Your task to perform on an android device: turn on airplane mode Image 0: 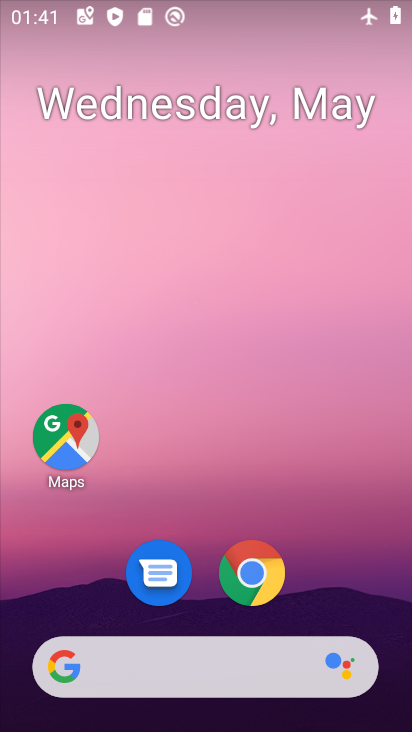
Step 0: drag from (351, 581) to (300, 319)
Your task to perform on an android device: turn on airplane mode Image 1: 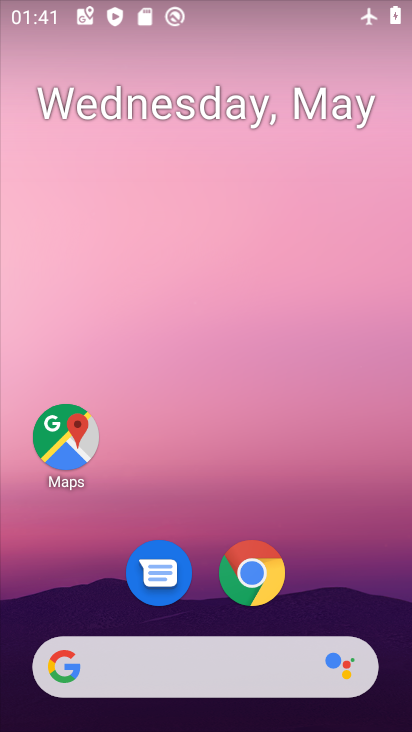
Step 1: drag from (269, 601) to (317, 80)
Your task to perform on an android device: turn on airplane mode Image 2: 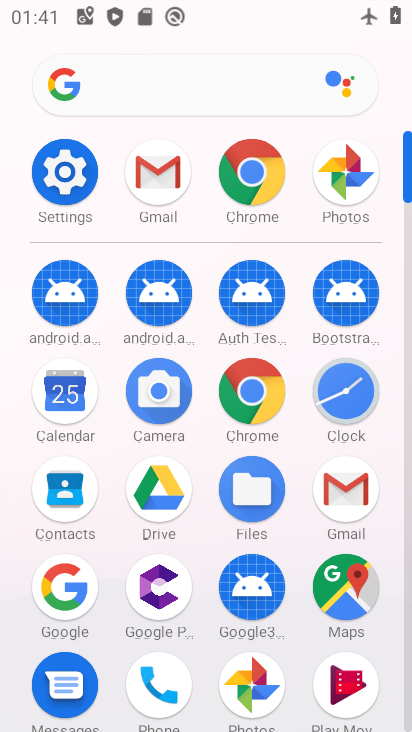
Step 2: click (69, 154)
Your task to perform on an android device: turn on airplane mode Image 3: 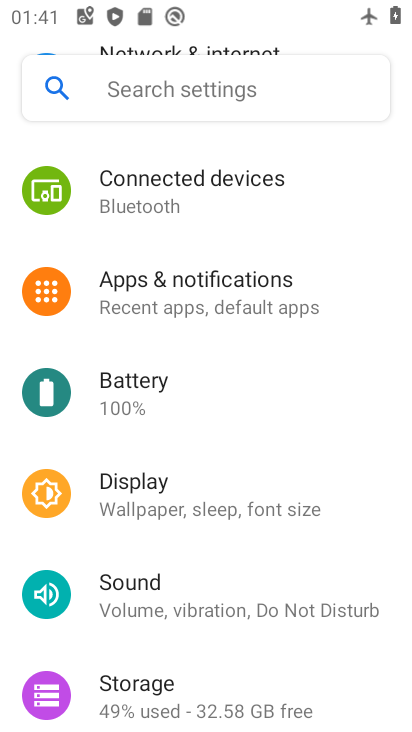
Step 3: drag from (213, 177) to (199, 496)
Your task to perform on an android device: turn on airplane mode Image 4: 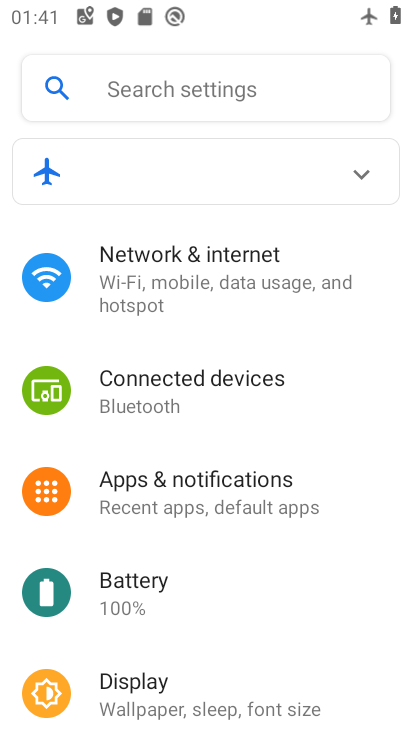
Step 4: click (200, 270)
Your task to perform on an android device: turn on airplane mode Image 5: 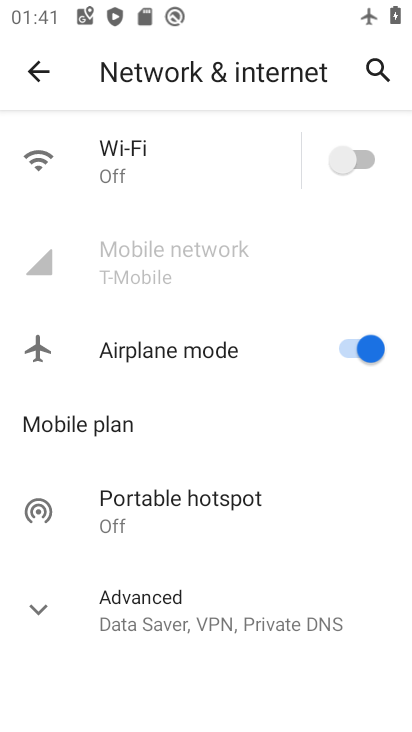
Step 5: click (350, 336)
Your task to perform on an android device: turn on airplane mode Image 6: 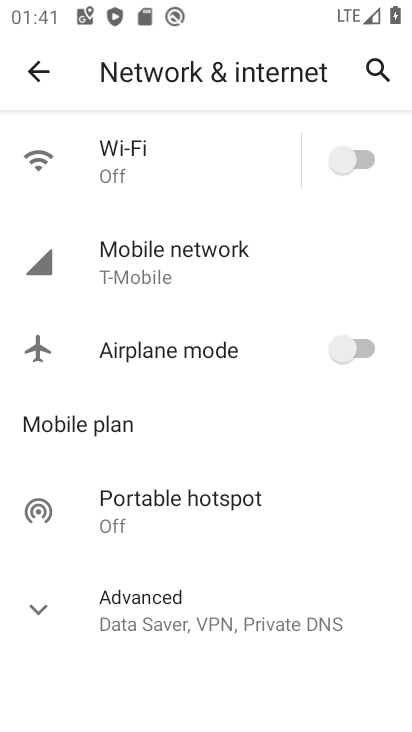
Step 6: task complete